Your task to perform on an android device: Open Maps and search for coffee Image 0: 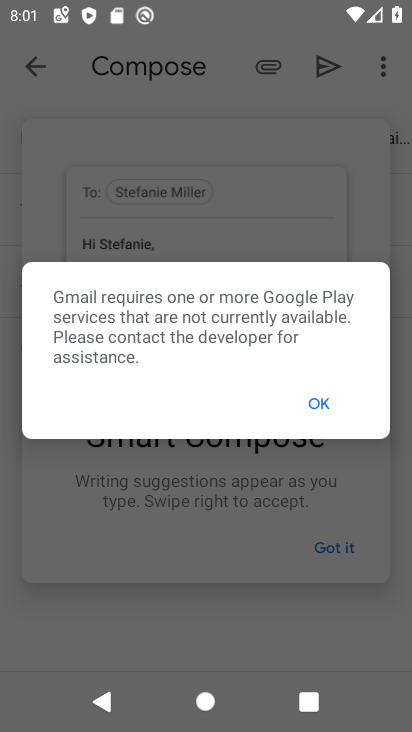
Step 0: press home button
Your task to perform on an android device: Open Maps and search for coffee Image 1: 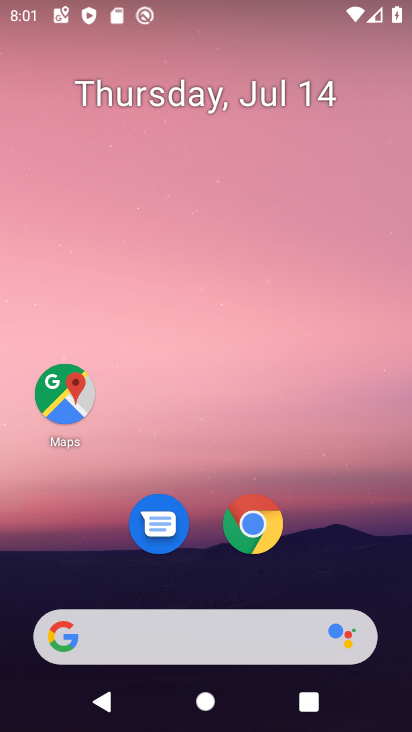
Step 1: click (64, 391)
Your task to perform on an android device: Open Maps and search for coffee Image 2: 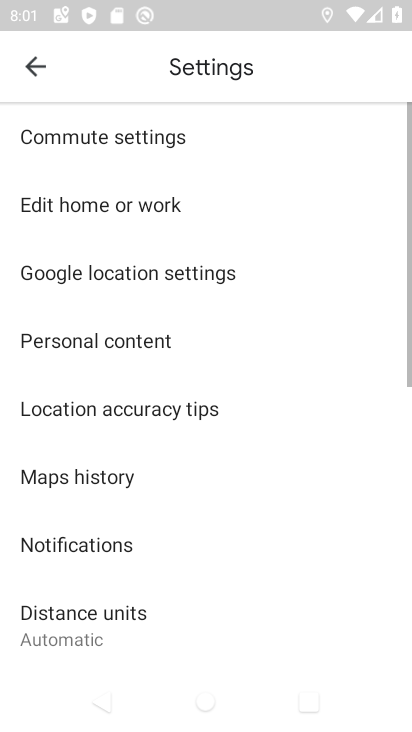
Step 2: click (39, 57)
Your task to perform on an android device: Open Maps and search for coffee Image 3: 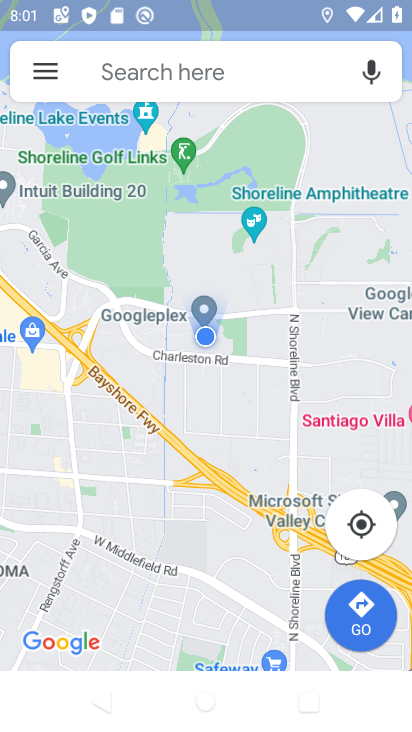
Step 3: click (123, 69)
Your task to perform on an android device: Open Maps and search for coffee Image 4: 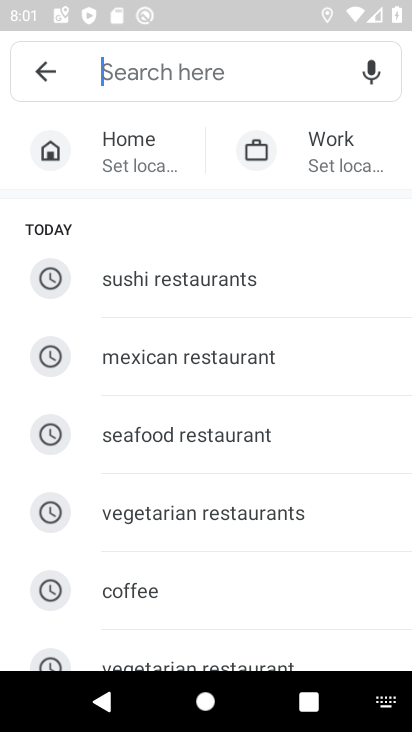
Step 4: click (147, 587)
Your task to perform on an android device: Open Maps and search for coffee Image 5: 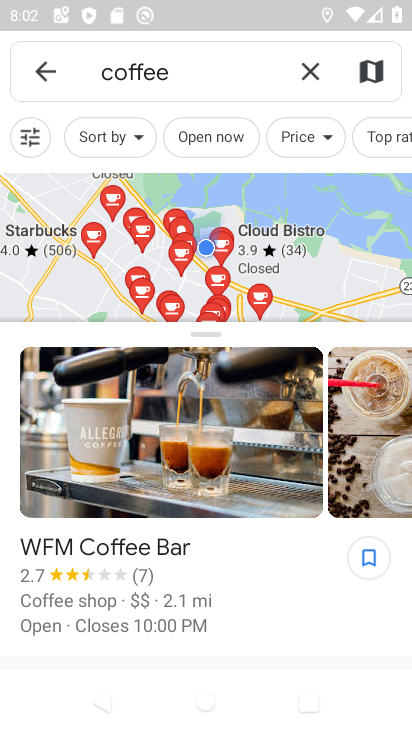
Step 5: task complete